Your task to perform on an android device: empty trash in the gmail app Image 0: 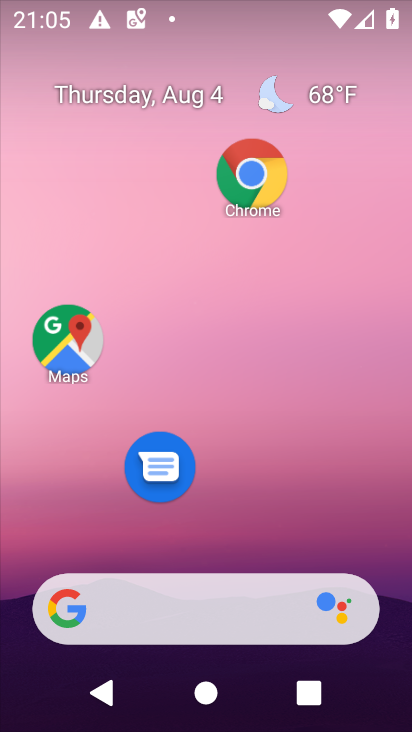
Step 0: press home button
Your task to perform on an android device: empty trash in the gmail app Image 1: 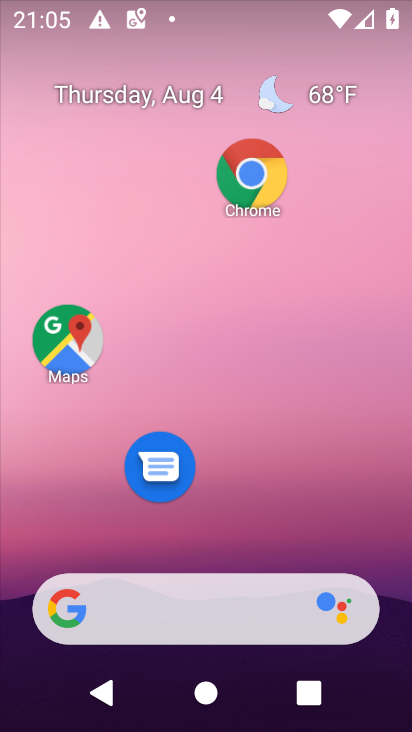
Step 1: drag from (145, 575) to (203, 273)
Your task to perform on an android device: empty trash in the gmail app Image 2: 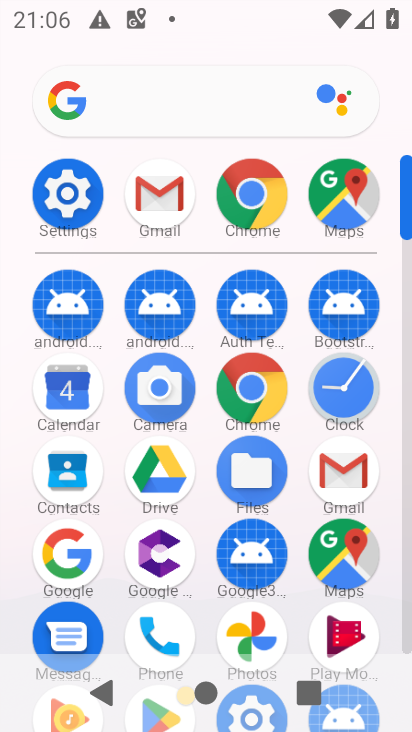
Step 2: click (154, 212)
Your task to perform on an android device: empty trash in the gmail app Image 3: 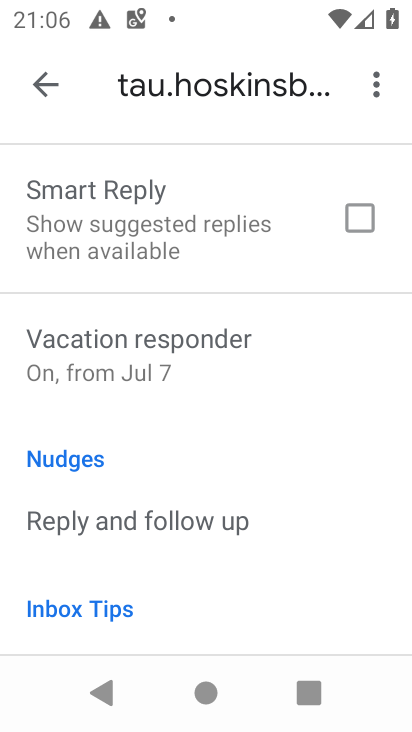
Step 3: click (36, 51)
Your task to perform on an android device: empty trash in the gmail app Image 4: 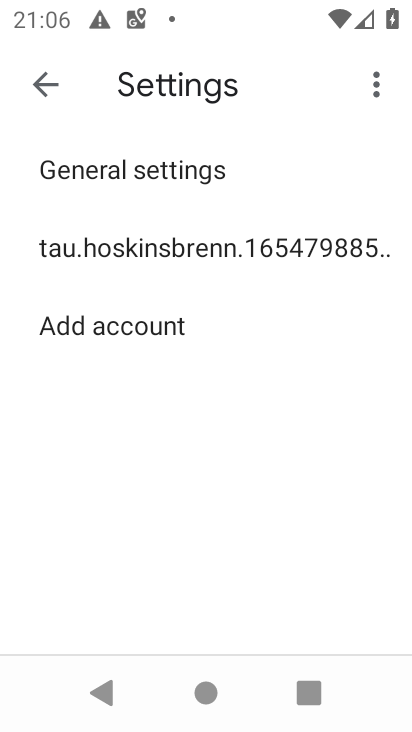
Step 4: click (43, 96)
Your task to perform on an android device: empty trash in the gmail app Image 5: 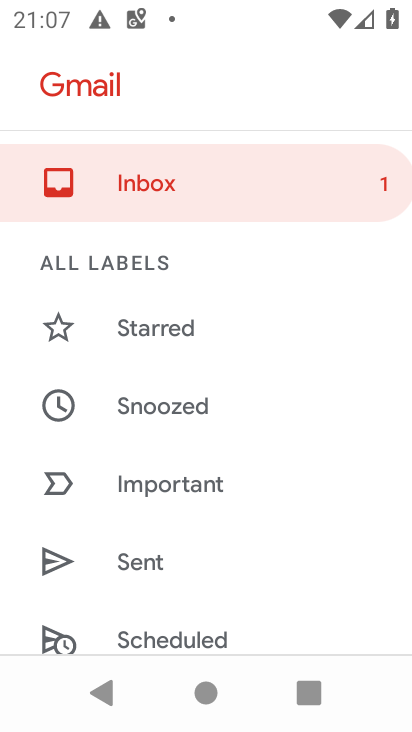
Step 5: drag from (112, 593) to (106, 523)
Your task to perform on an android device: empty trash in the gmail app Image 6: 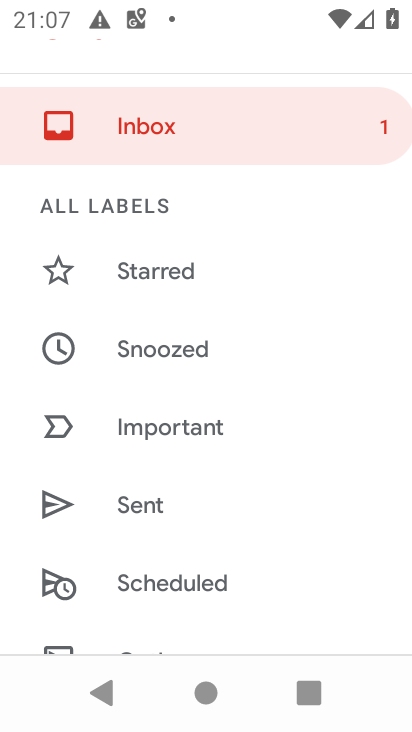
Step 6: drag from (200, 585) to (138, 167)
Your task to perform on an android device: empty trash in the gmail app Image 7: 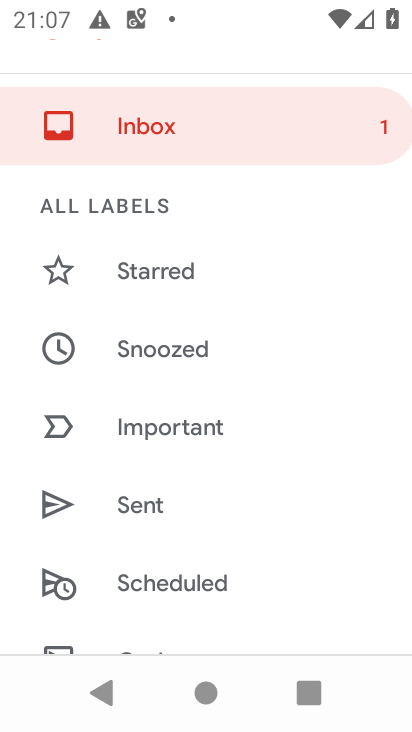
Step 7: drag from (215, 590) to (217, 264)
Your task to perform on an android device: empty trash in the gmail app Image 8: 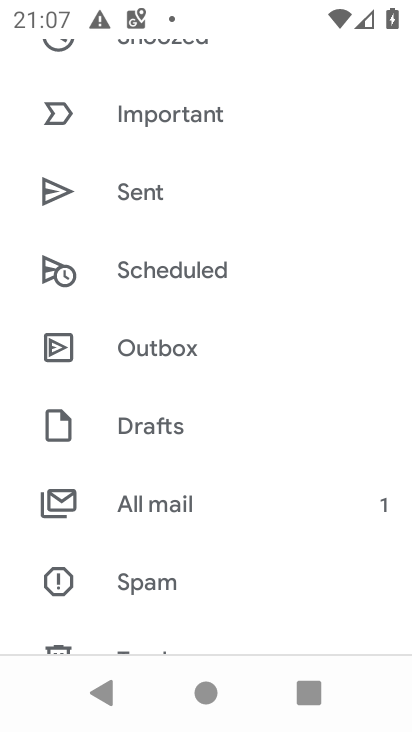
Step 8: drag from (170, 599) to (231, 376)
Your task to perform on an android device: empty trash in the gmail app Image 9: 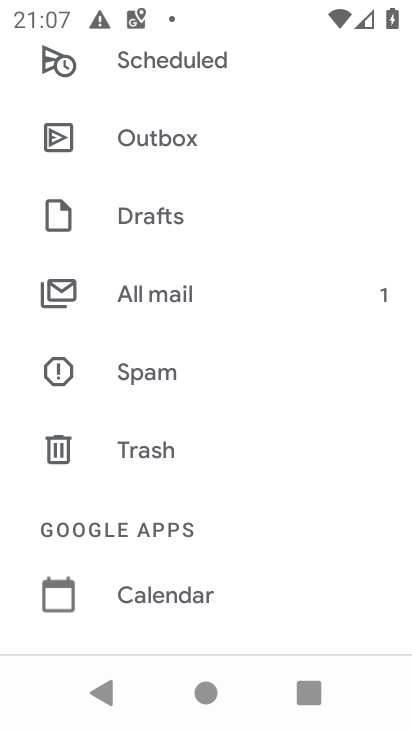
Step 9: click (175, 461)
Your task to perform on an android device: empty trash in the gmail app Image 10: 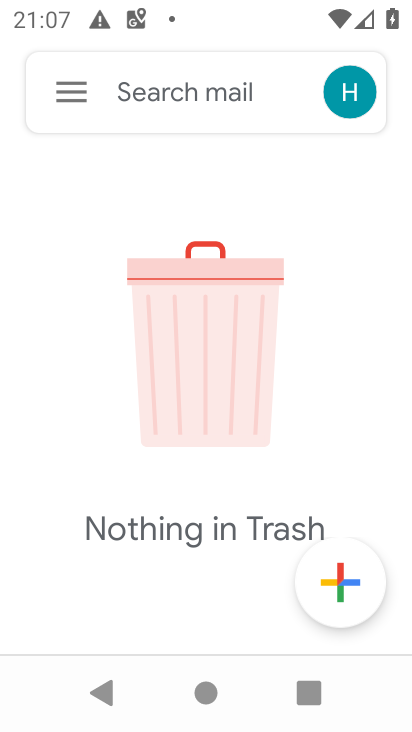
Step 10: task complete